Your task to perform on an android device: Open calendar and show me the third week of next month Image 0: 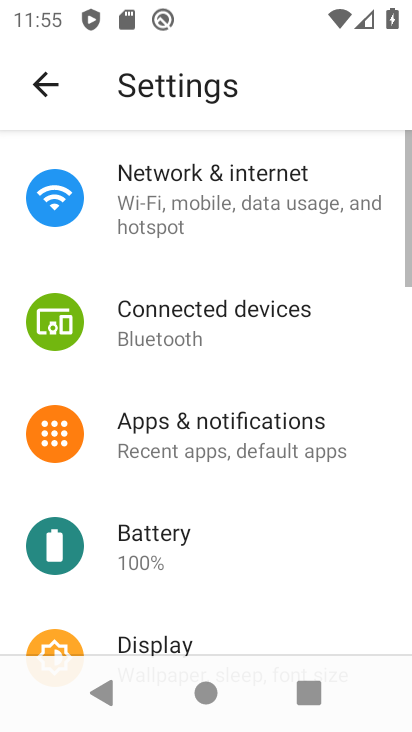
Step 0: press home button
Your task to perform on an android device: Open calendar and show me the third week of next month Image 1: 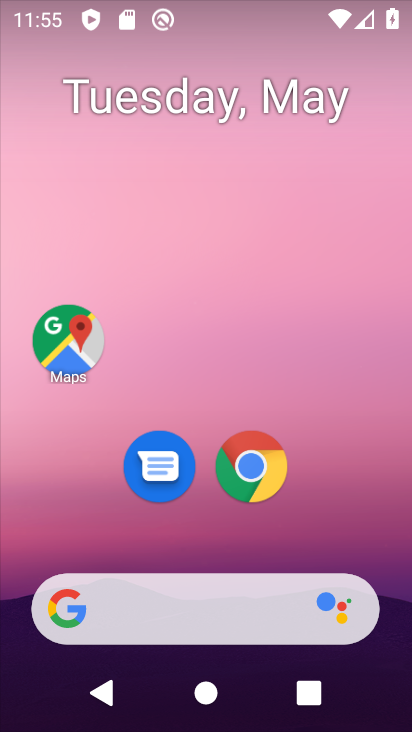
Step 1: drag from (219, 518) to (196, 0)
Your task to perform on an android device: Open calendar and show me the third week of next month Image 2: 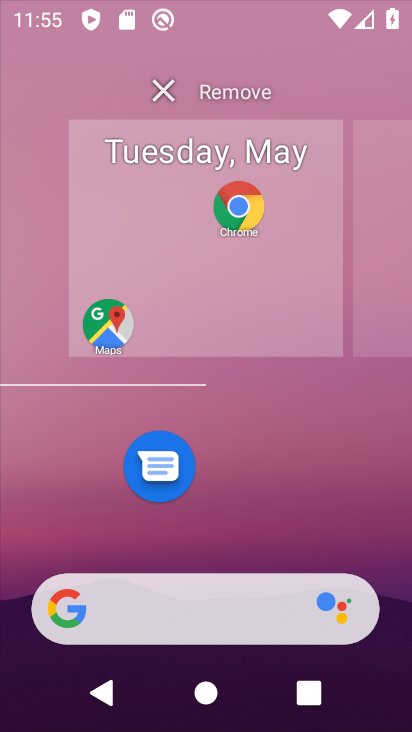
Step 2: click (183, 498)
Your task to perform on an android device: Open calendar and show me the third week of next month Image 3: 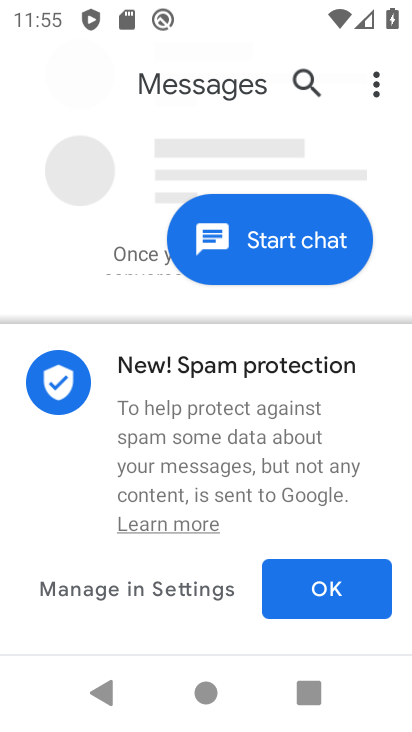
Step 3: press home button
Your task to perform on an android device: Open calendar and show me the third week of next month Image 4: 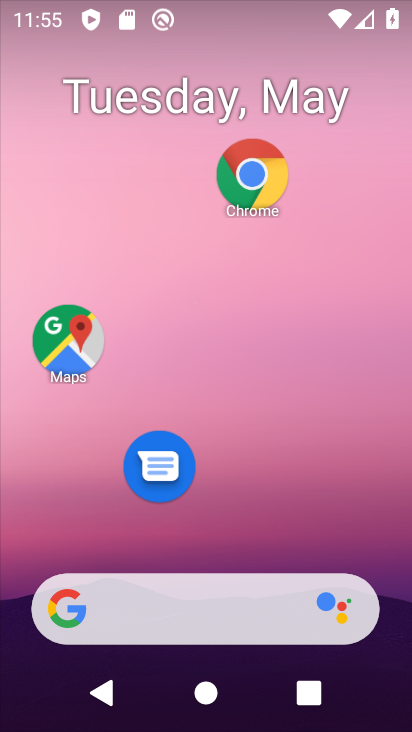
Step 4: drag from (205, 560) to (150, 142)
Your task to perform on an android device: Open calendar and show me the third week of next month Image 5: 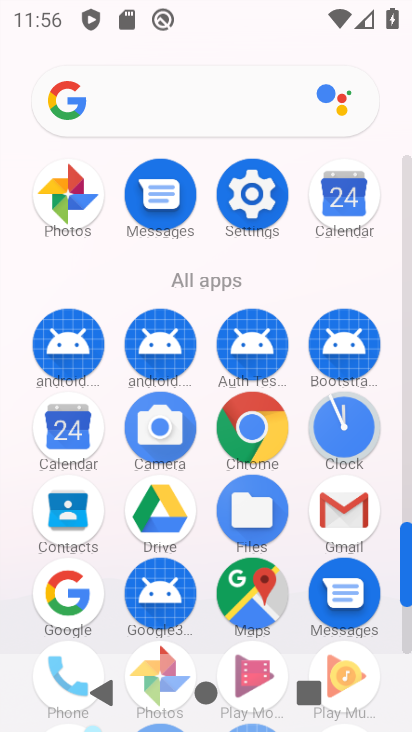
Step 5: click (84, 449)
Your task to perform on an android device: Open calendar and show me the third week of next month Image 6: 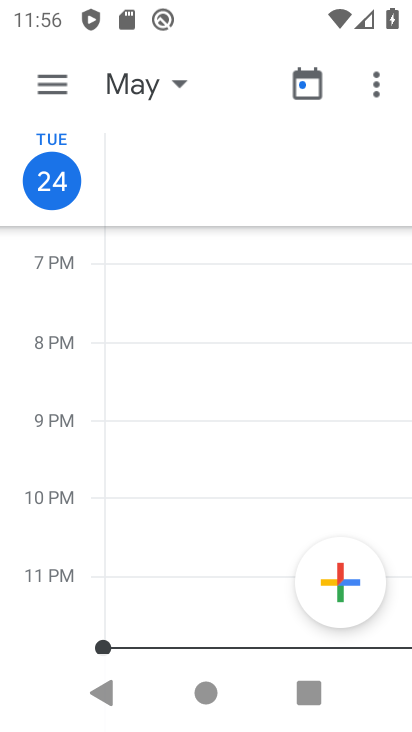
Step 6: click (60, 82)
Your task to perform on an android device: Open calendar and show me the third week of next month Image 7: 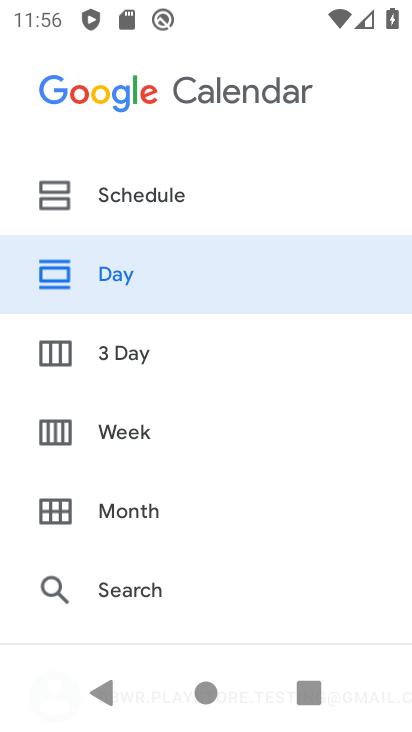
Step 7: click (116, 420)
Your task to perform on an android device: Open calendar and show me the third week of next month Image 8: 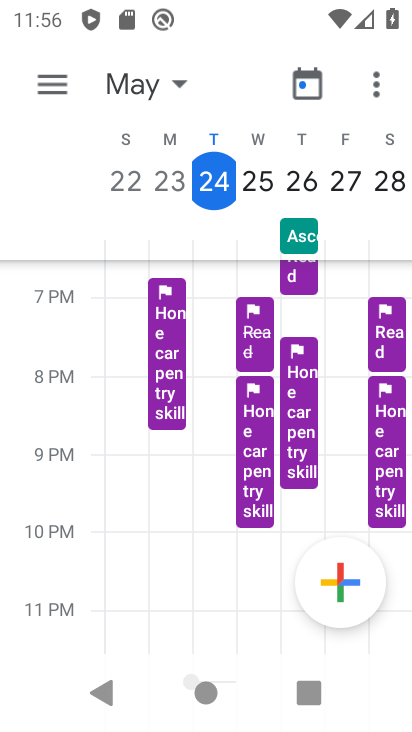
Step 8: task complete